Your task to perform on an android device: turn on translation in the chrome app Image 0: 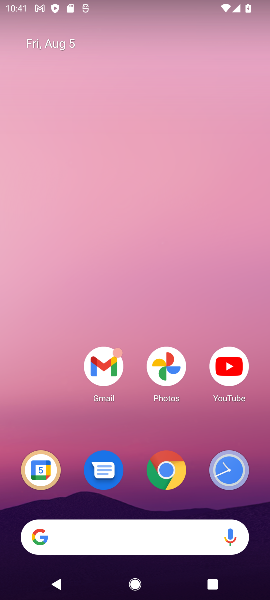
Step 0: click (168, 471)
Your task to perform on an android device: turn on translation in the chrome app Image 1: 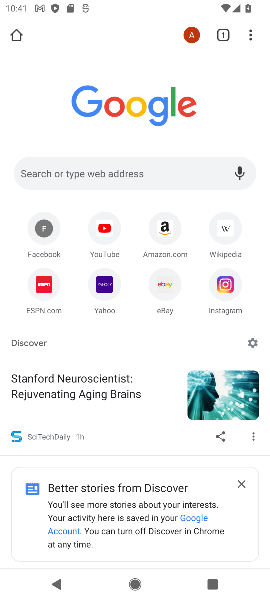
Step 1: click (250, 33)
Your task to perform on an android device: turn on translation in the chrome app Image 2: 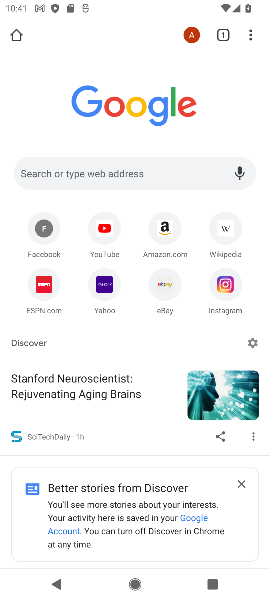
Step 2: click (250, 33)
Your task to perform on an android device: turn on translation in the chrome app Image 3: 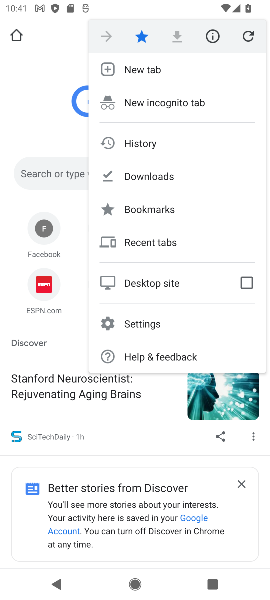
Step 3: click (144, 313)
Your task to perform on an android device: turn on translation in the chrome app Image 4: 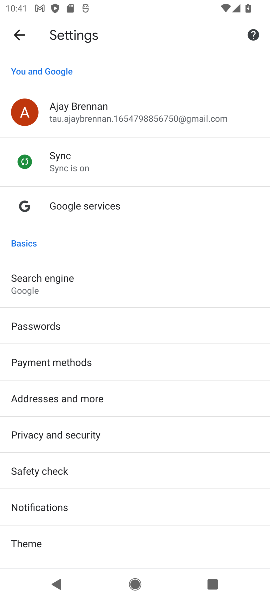
Step 4: drag from (46, 518) to (49, 274)
Your task to perform on an android device: turn on translation in the chrome app Image 5: 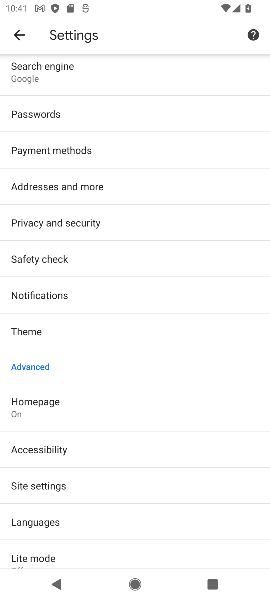
Step 5: click (43, 487)
Your task to perform on an android device: turn on translation in the chrome app Image 6: 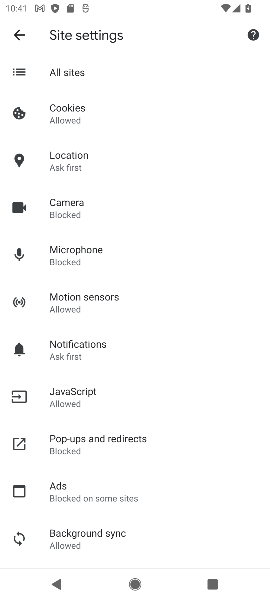
Step 6: click (22, 30)
Your task to perform on an android device: turn on translation in the chrome app Image 7: 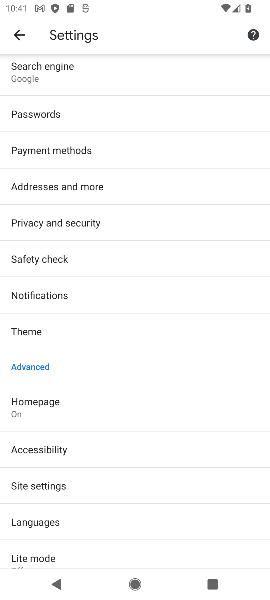
Step 7: click (15, 520)
Your task to perform on an android device: turn on translation in the chrome app Image 8: 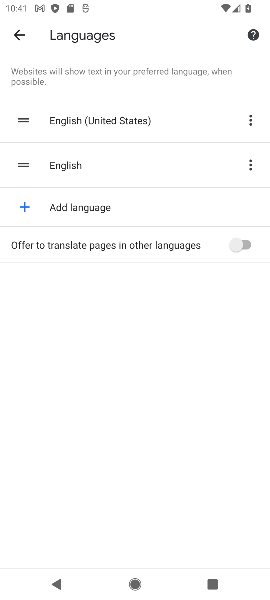
Step 8: click (244, 245)
Your task to perform on an android device: turn on translation in the chrome app Image 9: 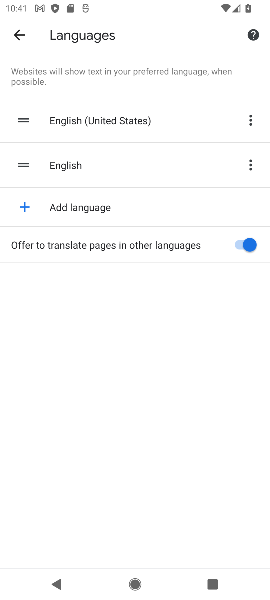
Step 9: task complete